Your task to perform on an android device: stop showing notifications on the lock screen Image 0: 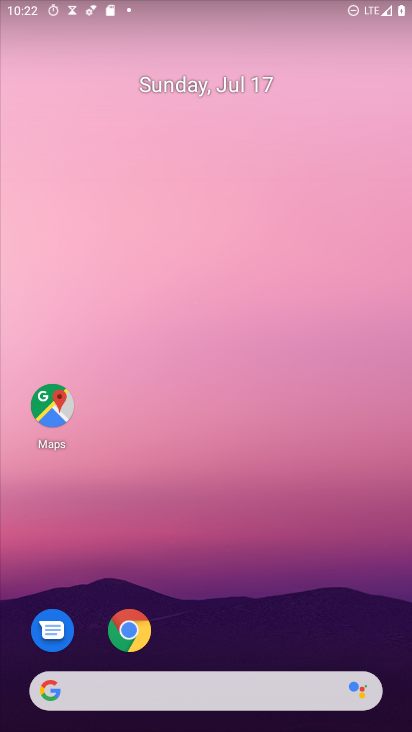
Step 0: drag from (251, 664) to (220, 6)
Your task to perform on an android device: stop showing notifications on the lock screen Image 1: 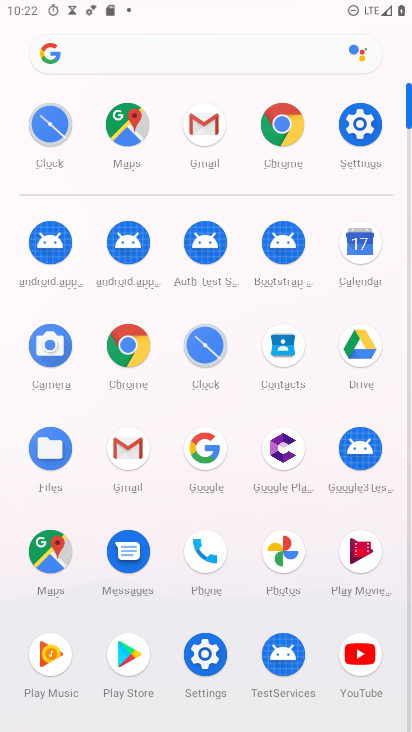
Step 1: click (356, 118)
Your task to perform on an android device: stop showing notifications on the lock screen Image 2: 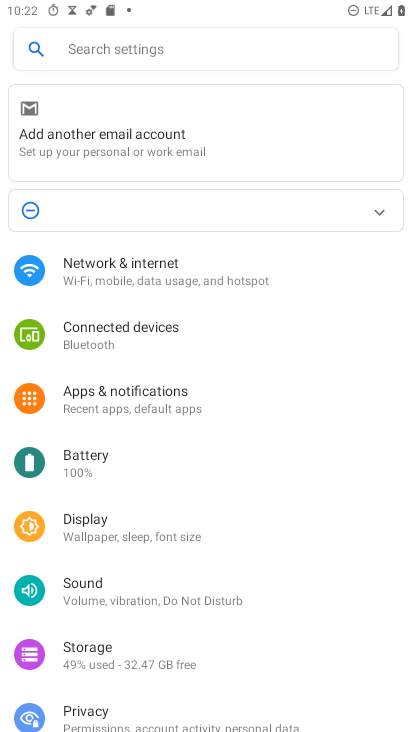
Step 2: click (201, 397)
Your task to perform on an android device: stop showing notifications on the lock screen Image 3: 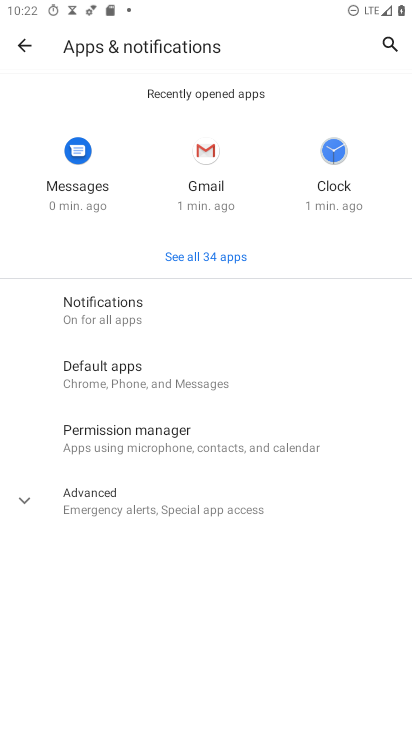
Step 3: click (159, 322)
Your task to perform on an android device: stop showing notifications on the lock screen Image 4: 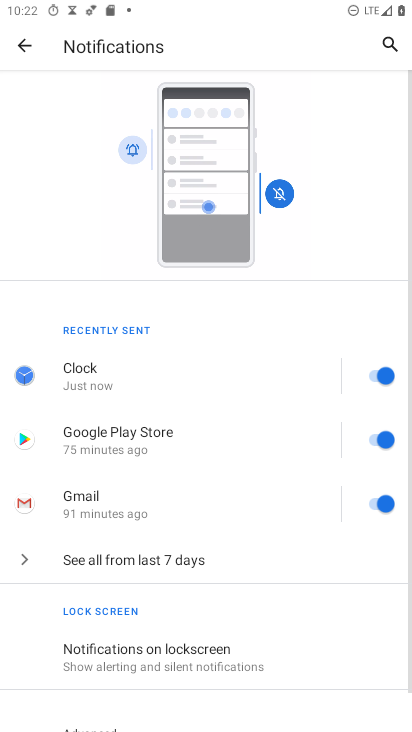
Step 4: drag from (193, 674) to (215, 312)
Your task to perform on an android device: stop showing notifications on the lock screen Image 5: 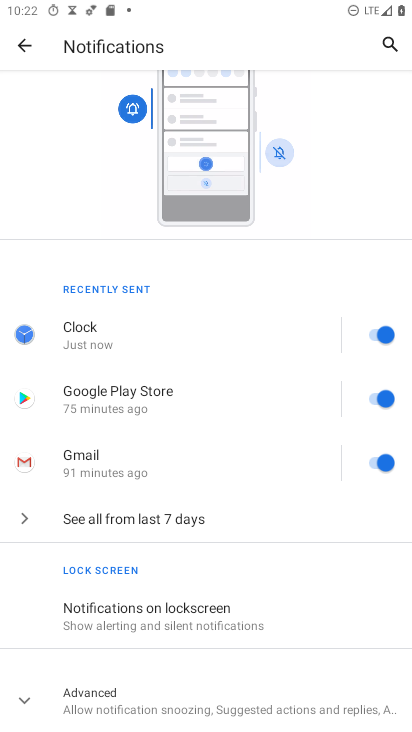
Step 5: click (157, 615)
Your task to perform on an android device: stop showing notifications on the lock screen Image 6: 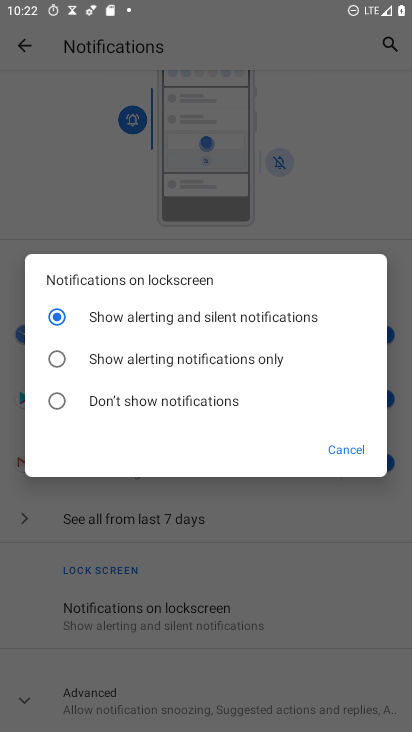
Step 6: click (61, 397)
Your task to perform on an android device: stop showing notifications on the lock screen Image 7: 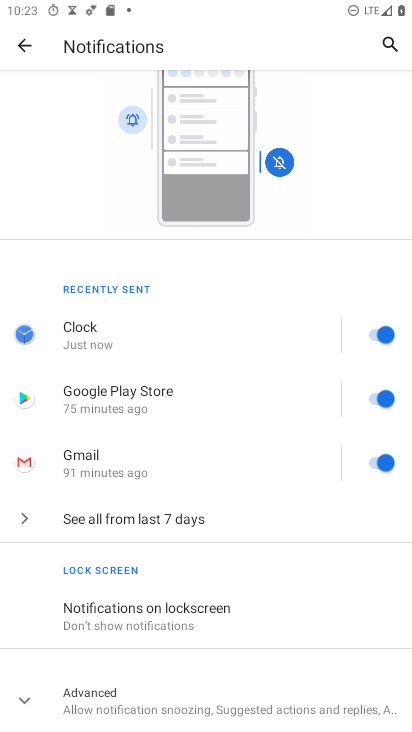
Step 7: task complete